Your task to perform on an android device: check storage Image 0: 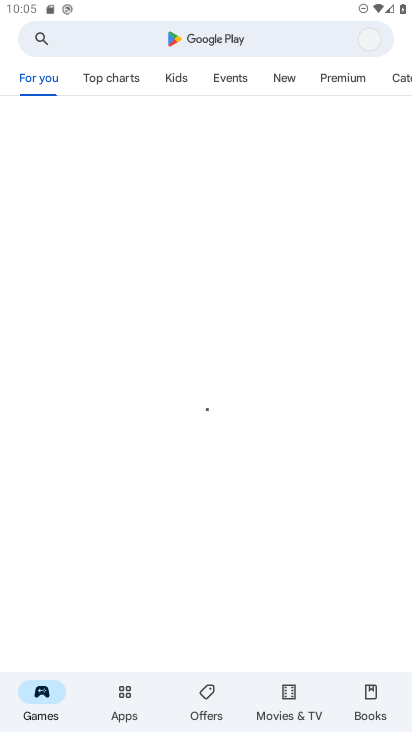
Step 0: press home button
Your task to perform on an android device: check storage Image 1: 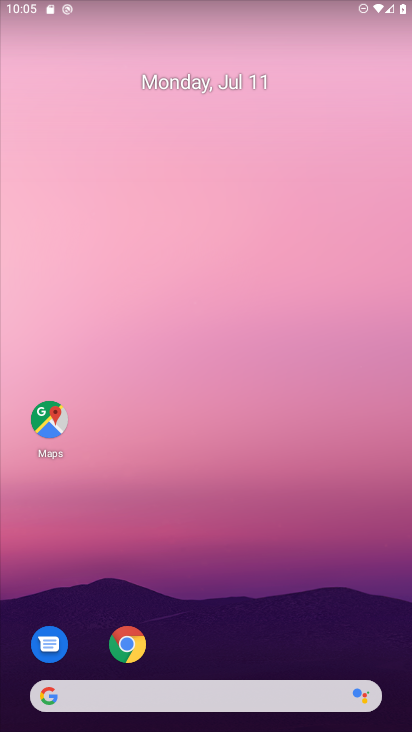
Step 1: drag from (224, 674) to (177, 245)
Your task to perform on an android device: check storage Image 2: 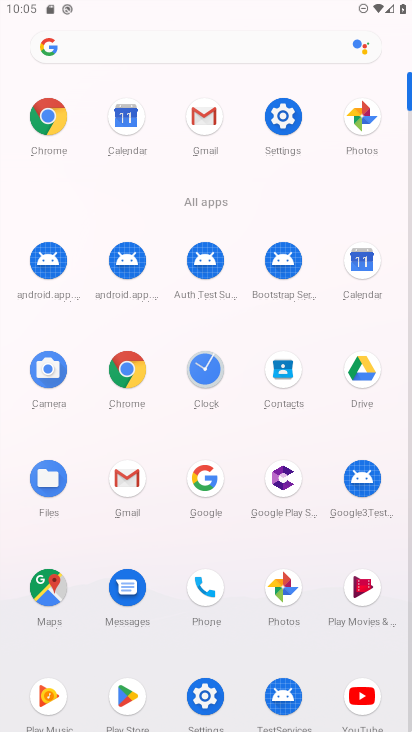
Step 2: click (274, 114)
Your task to perform on an android device: check storage Image 3: 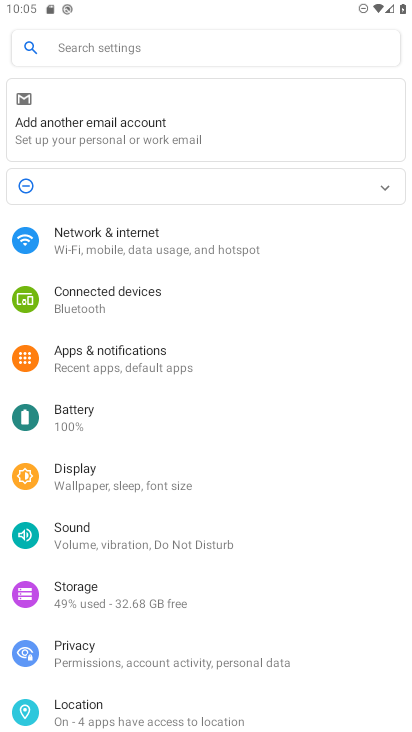
Step 3: click (99, 592)
Your task to perform on an android device: check storage Image 4: 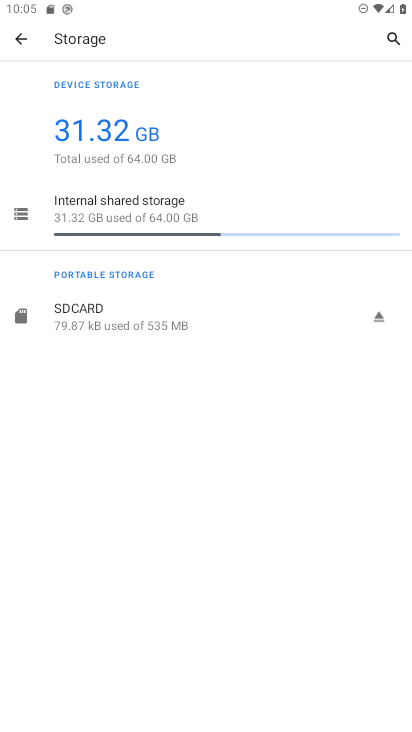
Step 4: task complete